Your task to perform on an android device: open chrome and create a bookmark for the current page Image 0: 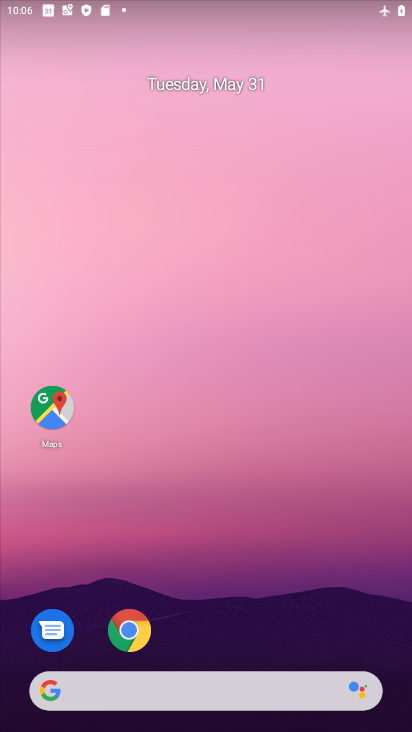
Step 0: click (118, 611)
Your task to perform on an android device: open chrome and create a bookmark for the current page Image 1: 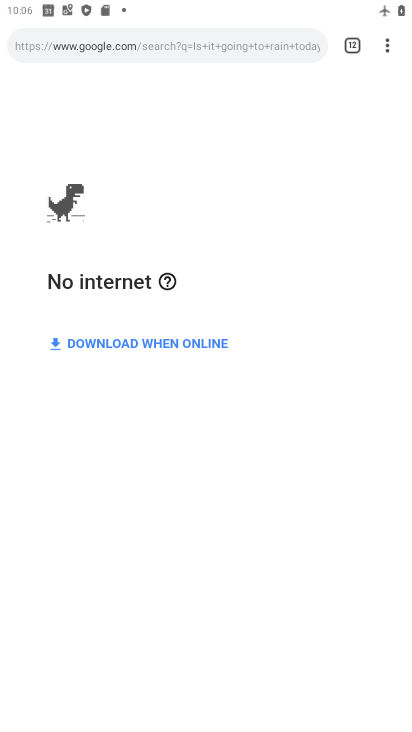
Step 1: click (383, 47)
Your task to perform on an android device: open chrome and create a bookmark for the current page Image 2: 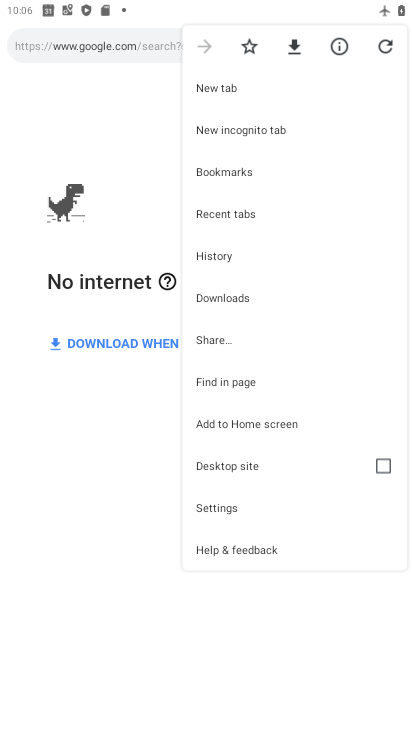
Step 2: click (246, 47)
Your task to perform on an android device: open chrome and create a bookmark for the current page Image 3: 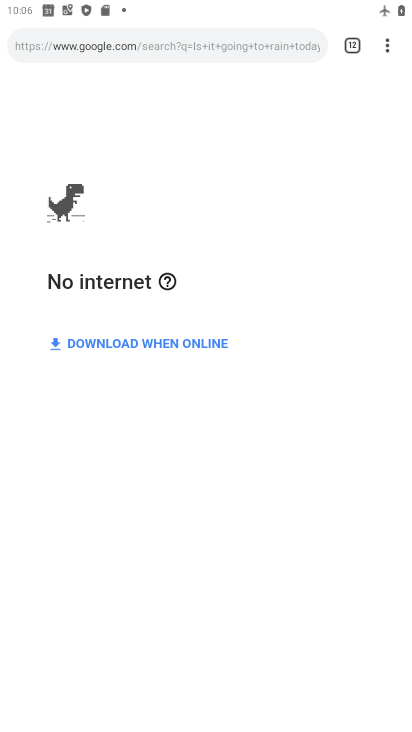
Step 3: task complete